Your task to perform on an android device: turn off data saver in the chrome app Image 0: 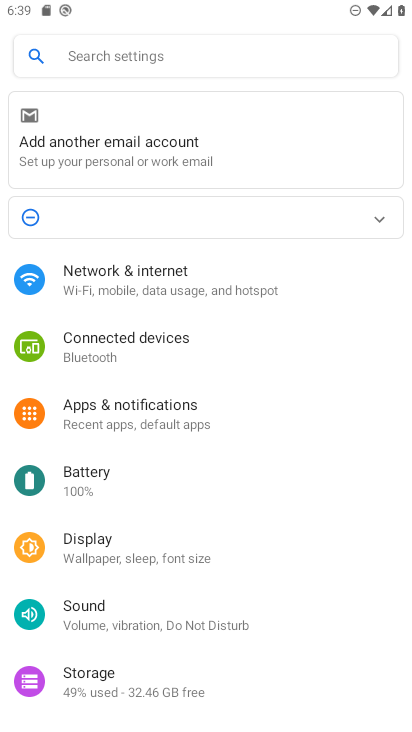
Step 0: press home button
Your task to perform on an android device: turn off data saver in the chrome app Image 1: 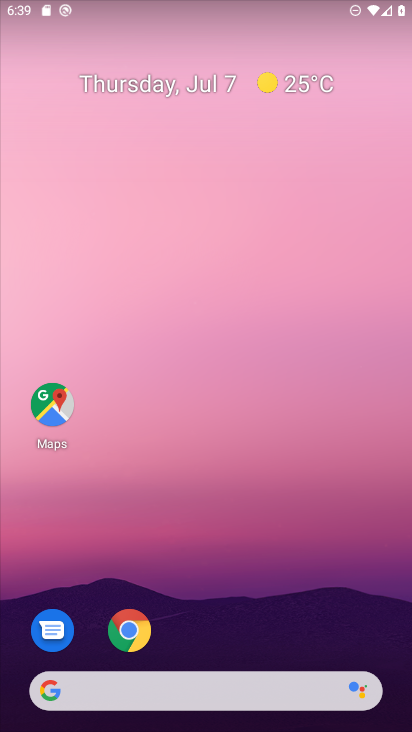
Step 1: drag from (245, 593) to (145, 102)
Your task to perform on an android device: turn off data saver in the chrome app Image 2: 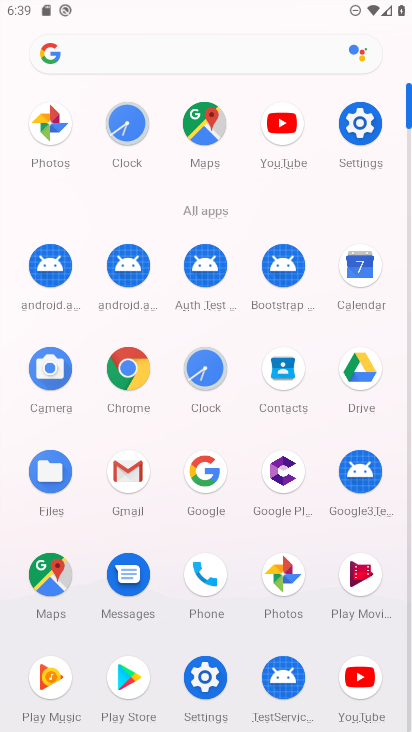
Step 2: click (128, 373)
Your task to perform on an android device: turn off data saver in the chrome app Image 3: 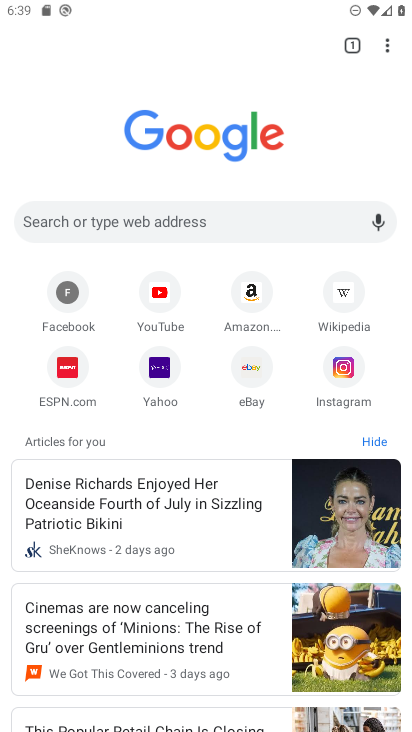
Step 3: click (384, 41)
Your task to perform on an android device: turn off data saver in the chrome app Image 4: 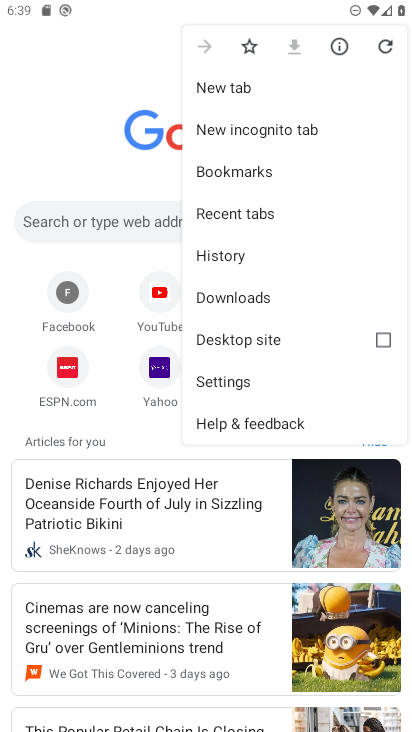
Step 4: click (217, 379)
Your task to perform on an android device: turn off data saver in the chrome app Image 5: 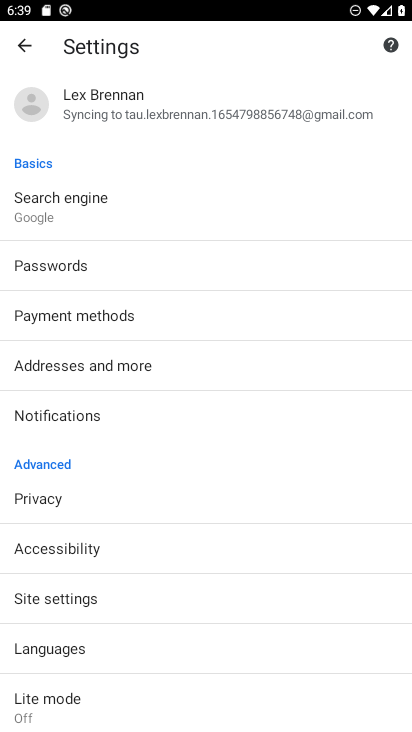
Step 5: click (61, 695)
Your task to perform on an android device: turn off data saver in the chrome app Image 6: 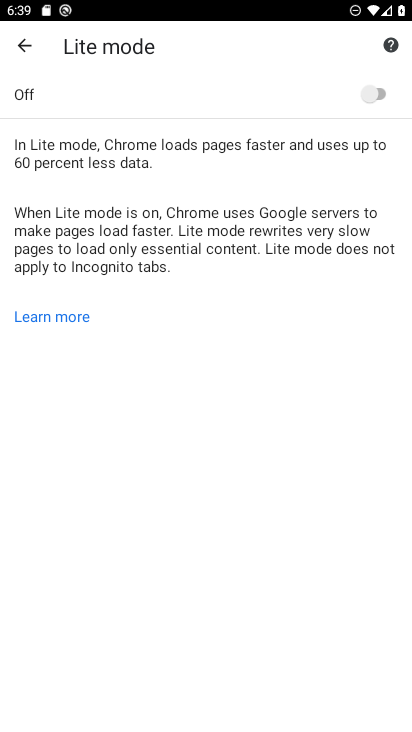
Step 6: task complete